Your task to perform on an android device: change timer sound Image 0: 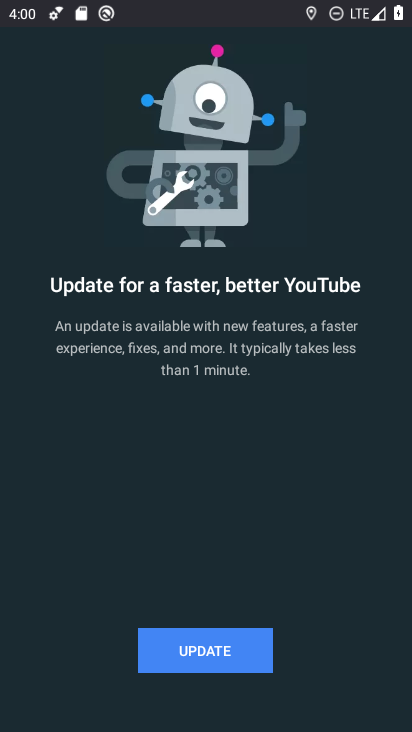
Step 0: press home button
Your task to perform on an android device: change timer sound Image 1: 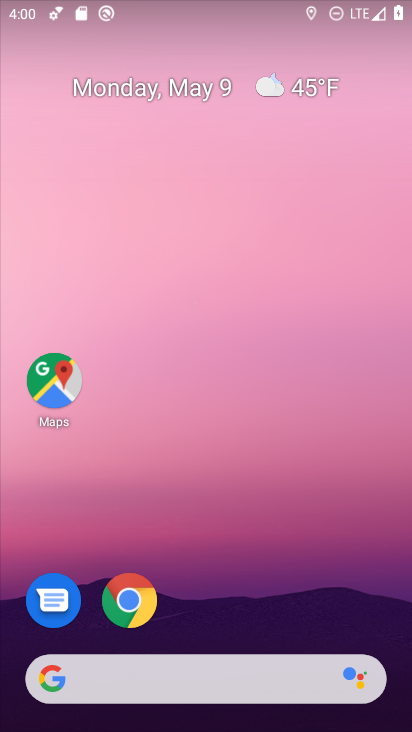
Step 1: drag from (243, 624) to (305, 144)
Your task to perform on an android device: change timer sound Image 2: 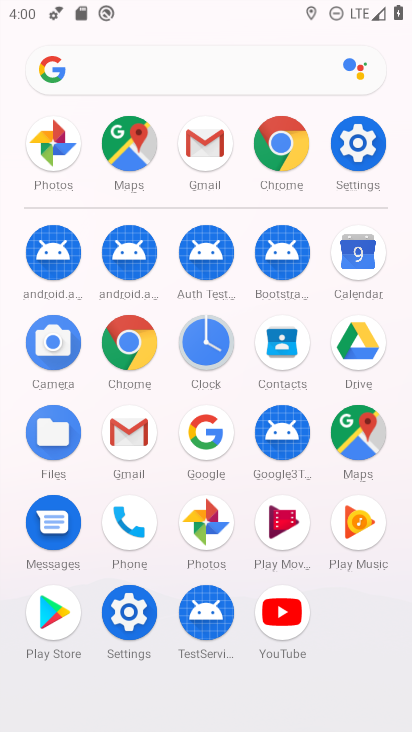
Step 2: click (215, 361)
Your task to perform on an android device: change timer sound Image 3: 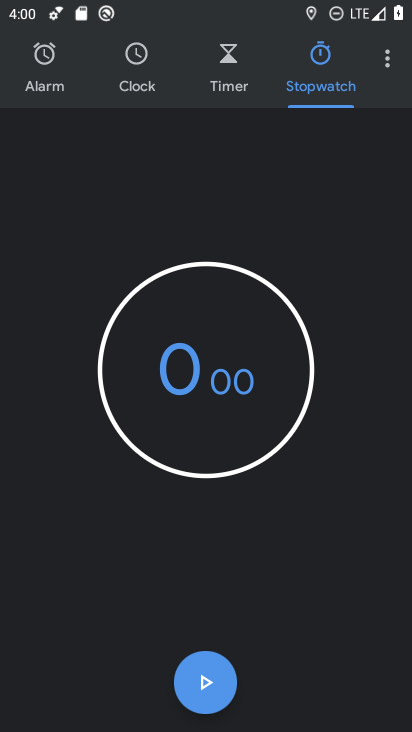
Step 3: click (395, 59)
Your task to perform on an android device: change timer sound Image 4: 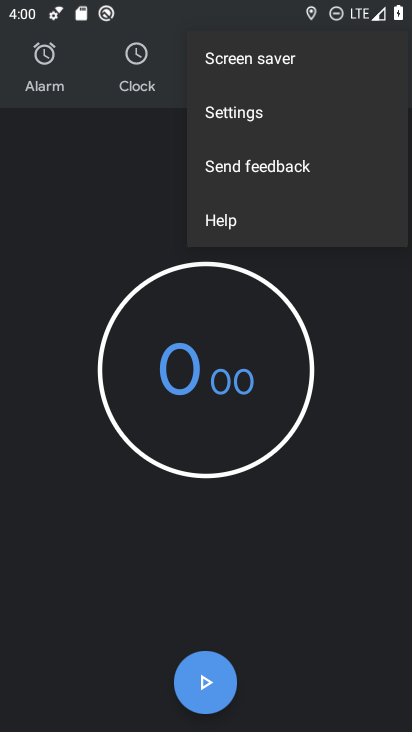
Step 4: click (261, 125)
Your task to perform on an android device: change timer sound Image 5: 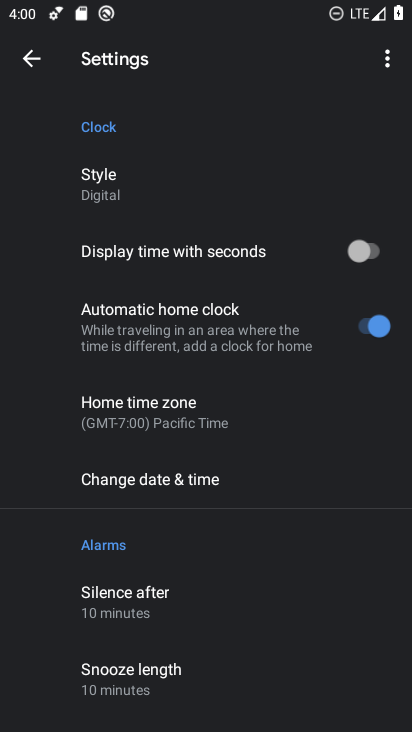
Step 5: drag from (211, 564) to (279, 213)
Your task to perform on an android device: change timer sound Image 6: 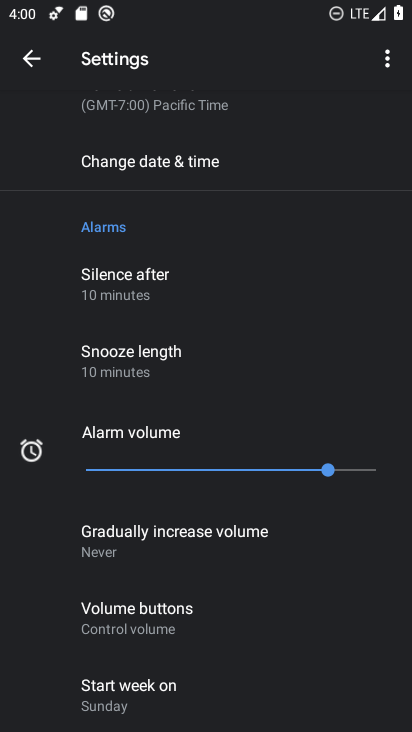
Step 6: drag from (225, 500) to (294, 126)
Your task to perform on an android device: change timer sound Image 7: 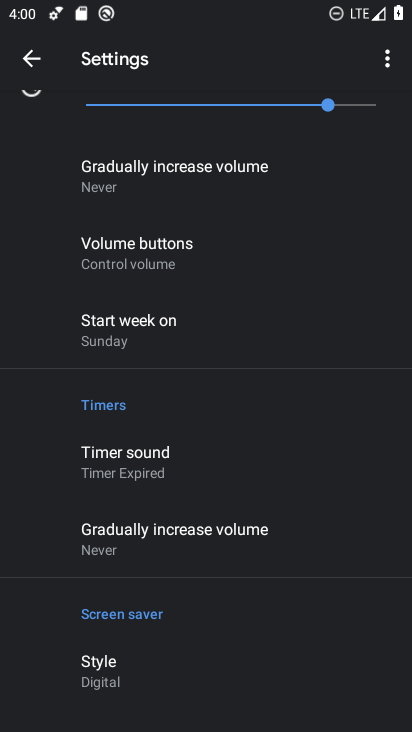
Step 7: drag from (245, 508) to (284, 276)
Your task to perform on an android device: change timer sound Image 8: 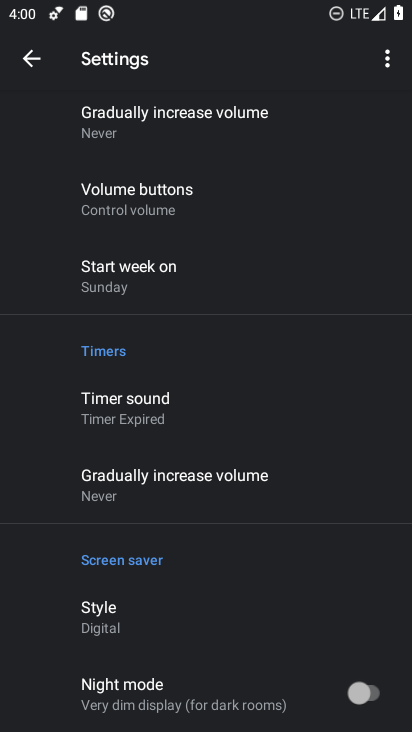
Step 8: click (146, 401)
Your task to perform on an android device: change timer sound Image 9: 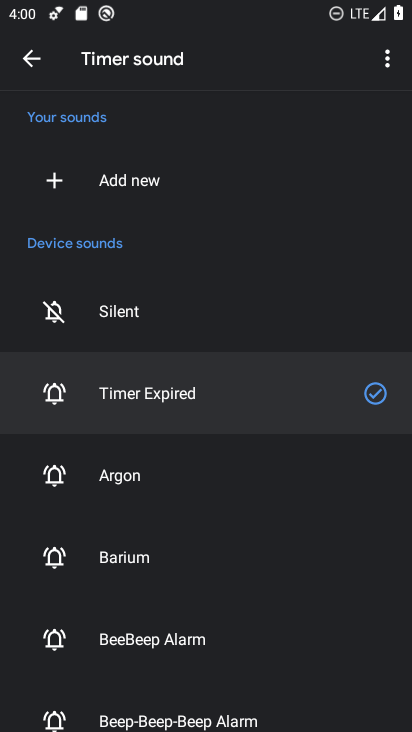
Step 9: click (95, 555)
Your task to perform on an android device: change timer sound Image 10: 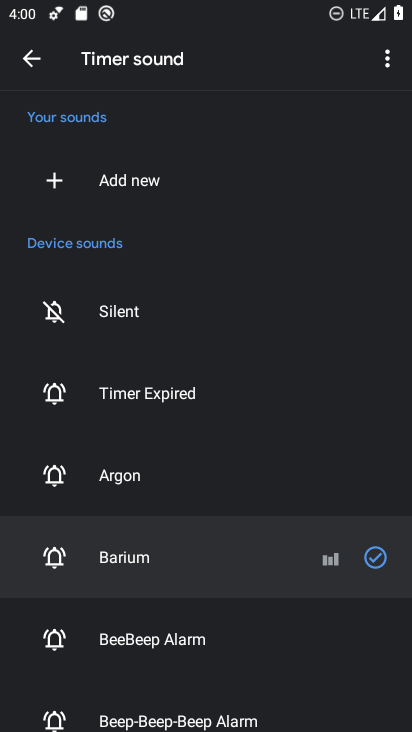
Step 10: task complete